Your task to perform on an android device: move an email to a new category in the gmail app Image 0: 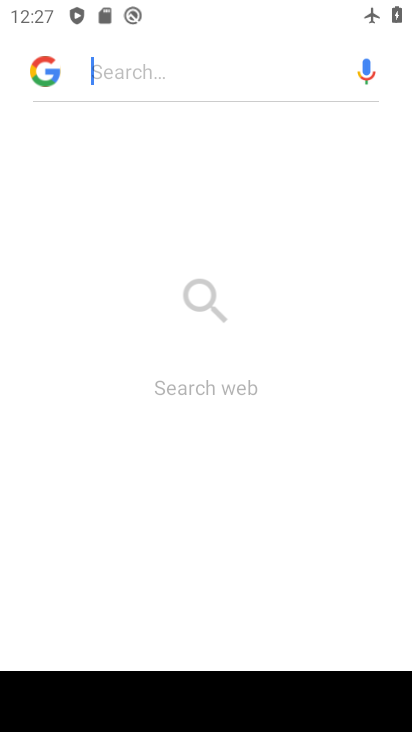
Step 0: press home button
Your task to perform on an android device: move an email to a new category in the gmail app Image 1: 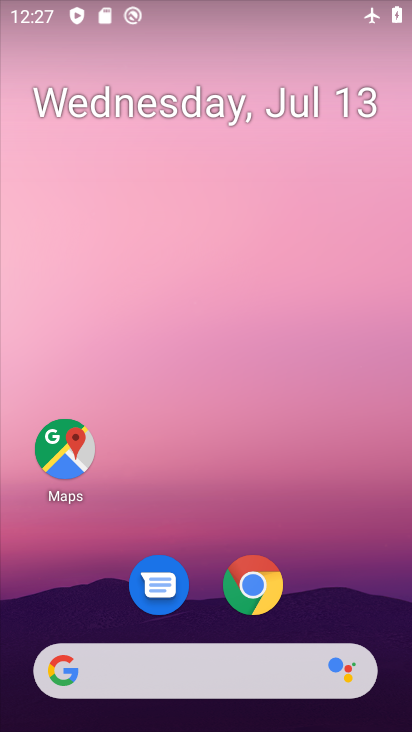
Step 1: drag from (329, 595) to (325, 79)
Your task to perform on an android device: move an email to a new category in the gmail app Image 2: 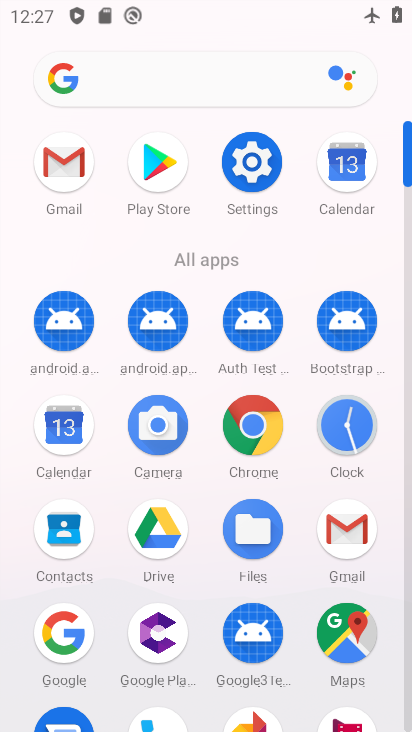
Step 2: click (342, 529)
Your task to perform on an android device: move an email to a new category in the gmail app Image 3: 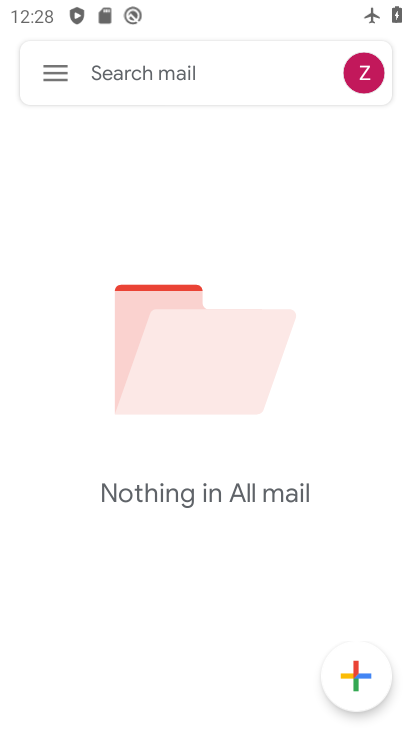
Step 3: task complete